Your task to perform on an android device: What's the weather going to be tomorrow? Image 0: 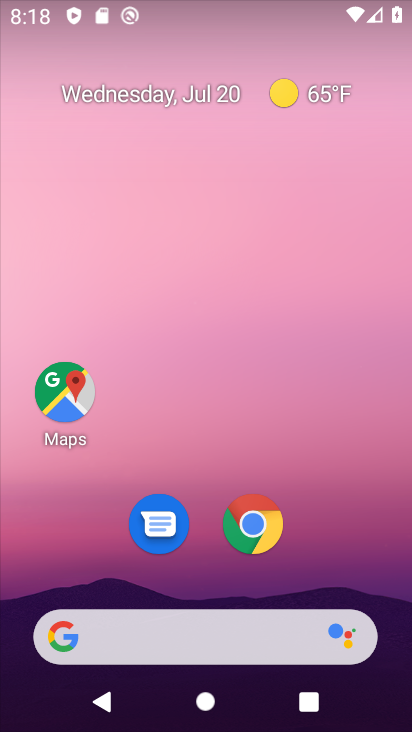
Step 0: click (155, 636)
Your task to perform on an android device: What's the weather going to be tomorrow? Image 1: 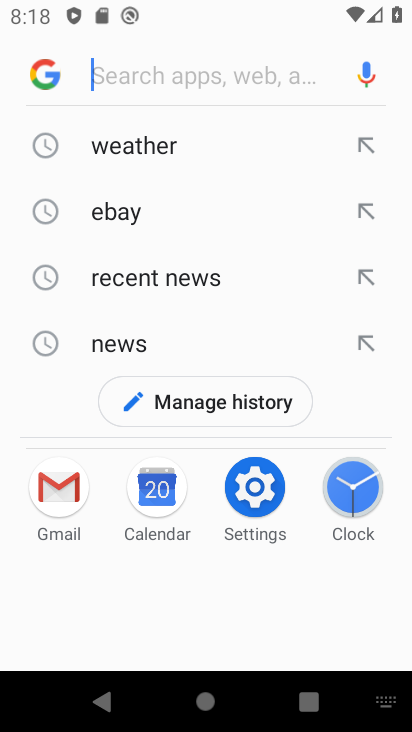
Step 1: click (44, 69)
Your task to perform on an android device: What's the weather going to be tomorrow? Image 2: 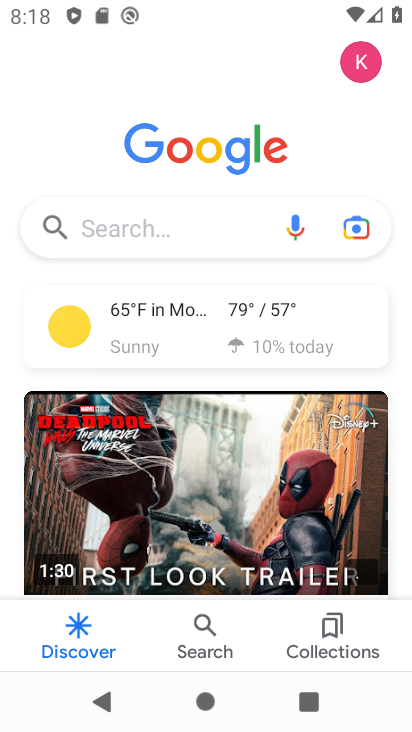
Step 2: click (149, 311)
Your task to perform on an android device: What's the weather going to be tomorrow? Image 3: 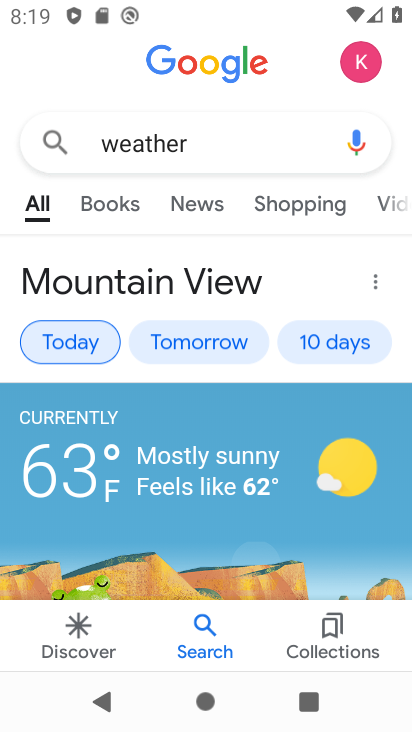
Step 3: click (184, 341)
Your task to perform on an android device: What's the weather going to be tomorrow? Image 4: 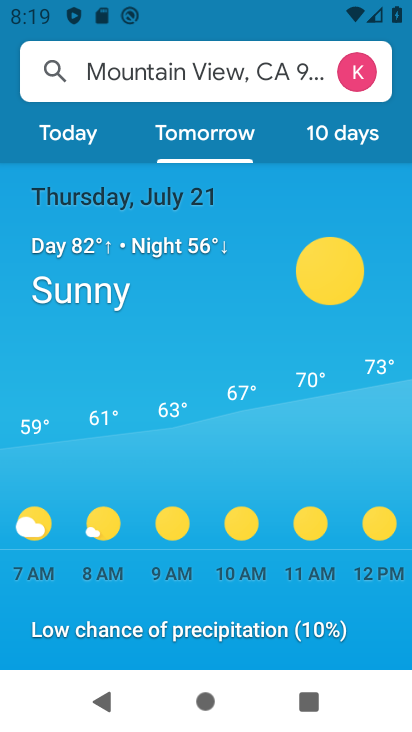
Step 4: task complete